Your task to perform on an android device: clear all cookies in the chrome app Image 0: 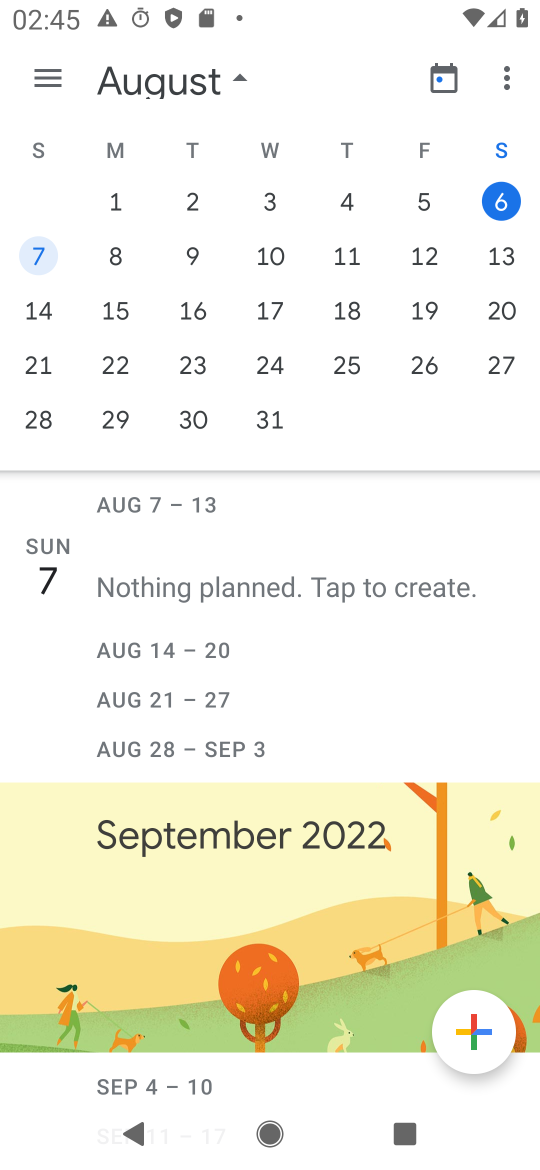
Step 0: press home button
Your task to perform on an android device: clear all cookies in the chrome app Image 1: 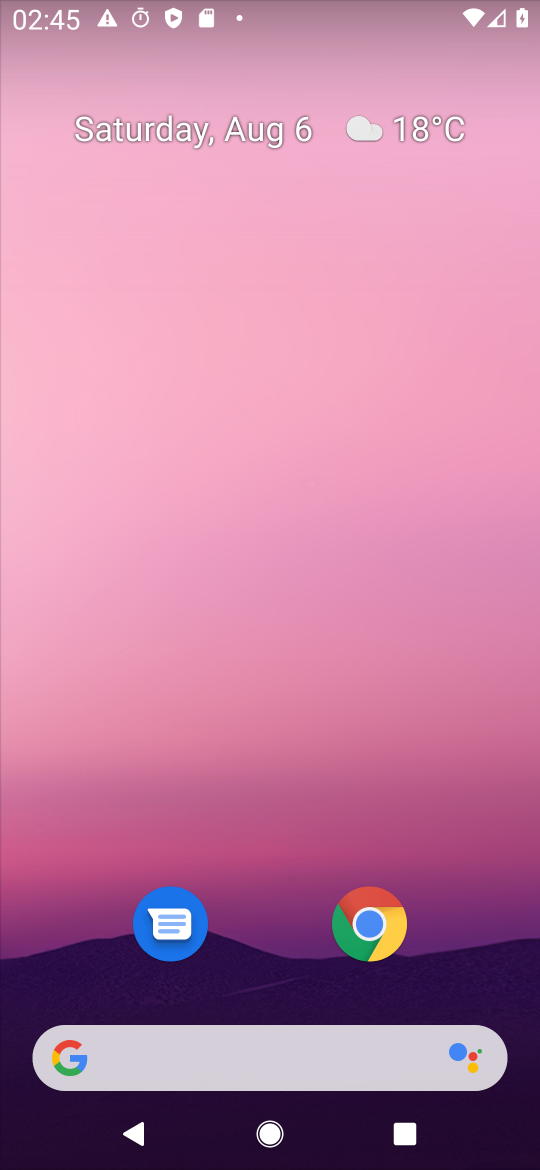
Step 1: drag from (341, 1059) to (371, 93)
Your task to perform on an android device: clear all cookies in the chrome app Image 2: 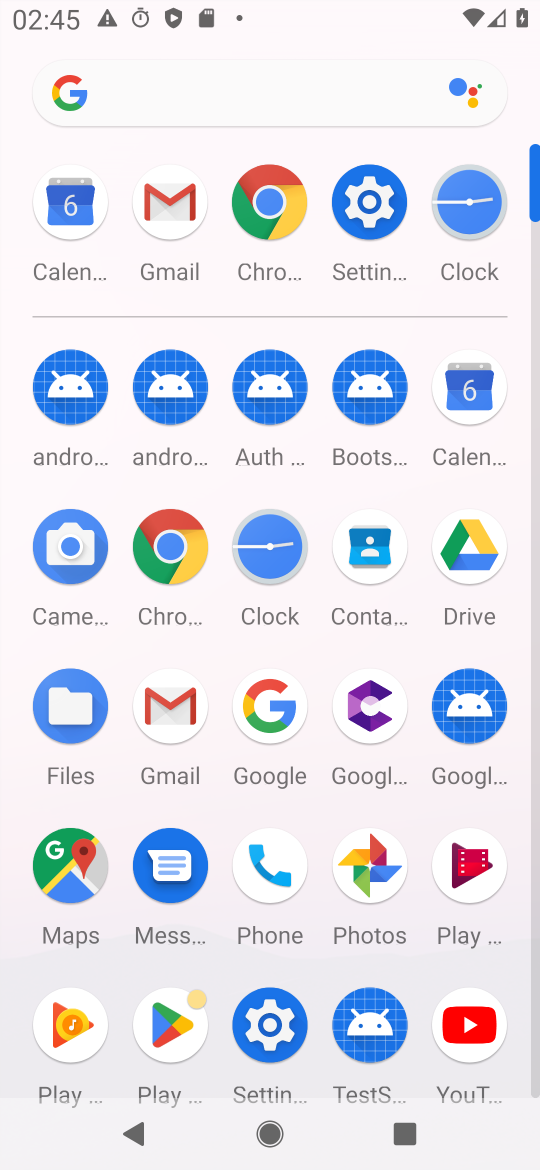
Step 2: click (157, 541)
Your task to perform on an android device: clear all cookies in the chrome app Image 3: 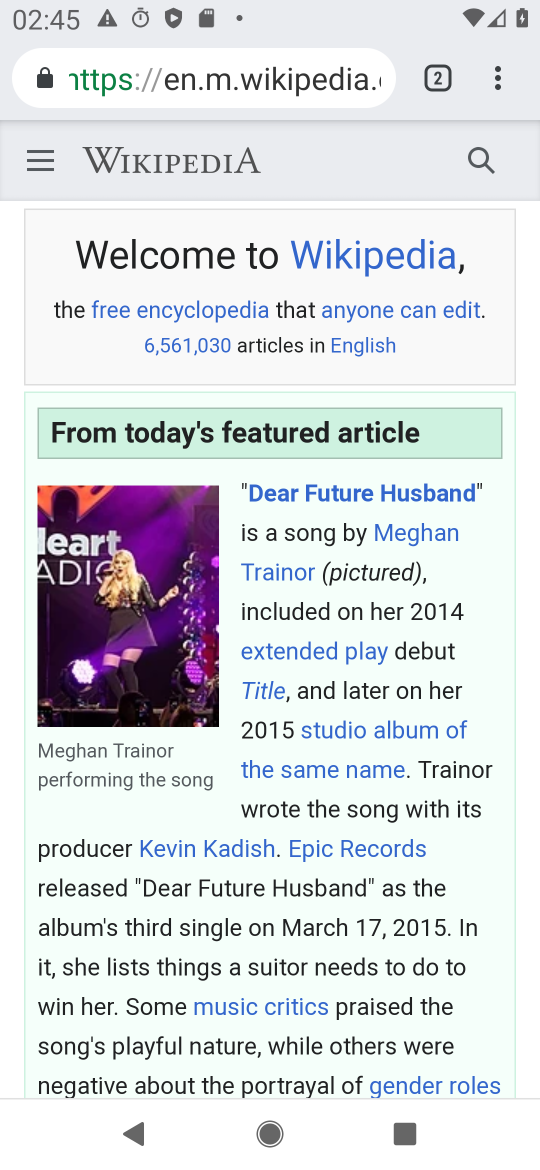
Step 3: click (491, 71)
Your task to perform on an android device: clear all cookies in the chrome app Image 4: 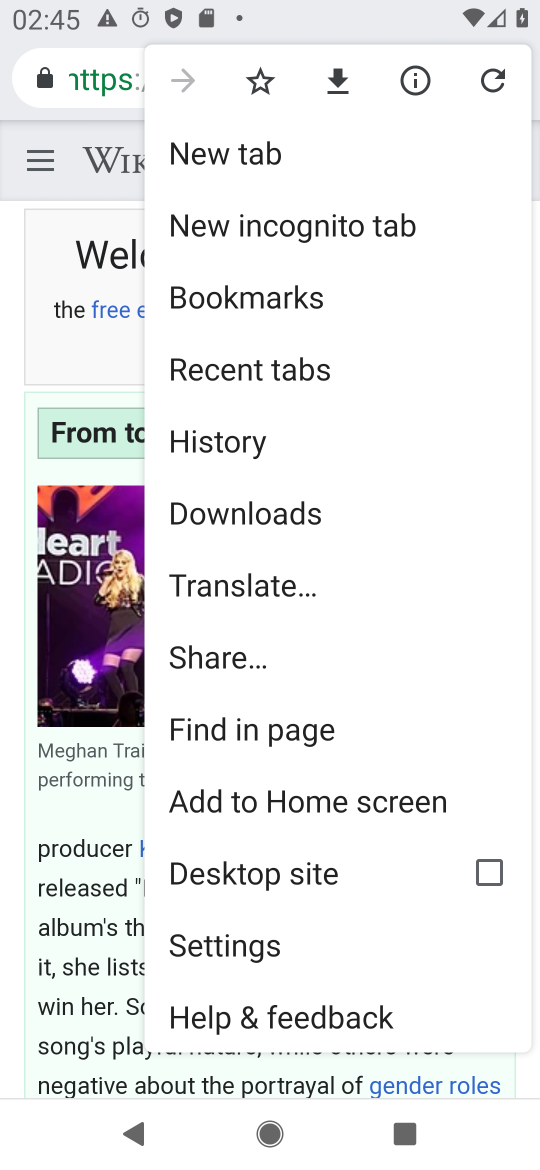
Step 4: click (211, 951)
Your task to perform on an android device: clear all cookies in the chrome app Image 5: 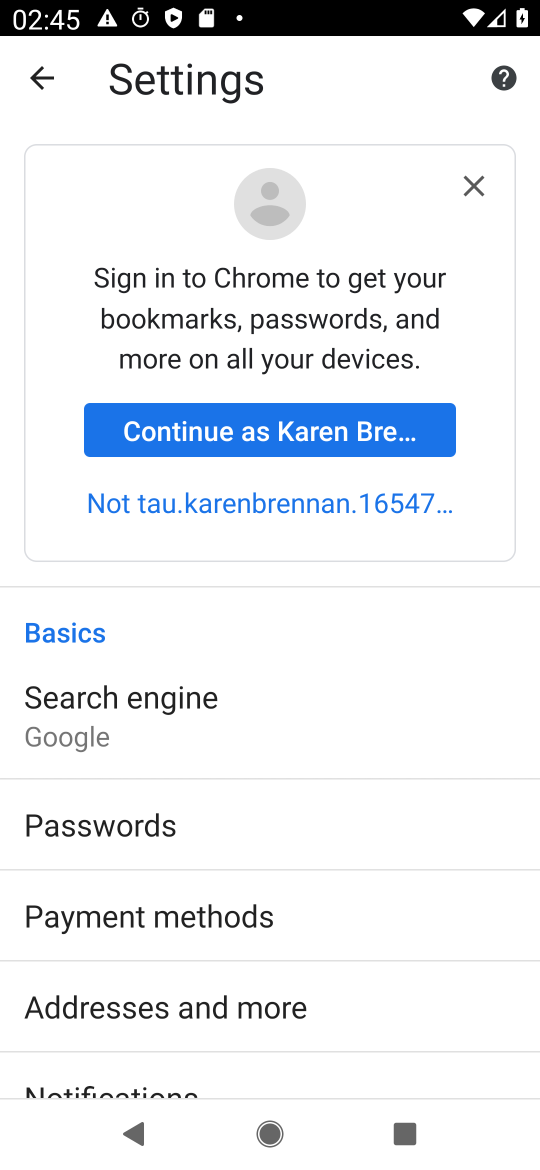
Step 5: drag from (453, 1035) to (508, 353)
Your task to perform on an android device: clear all cookies in the chrome app Image 6: 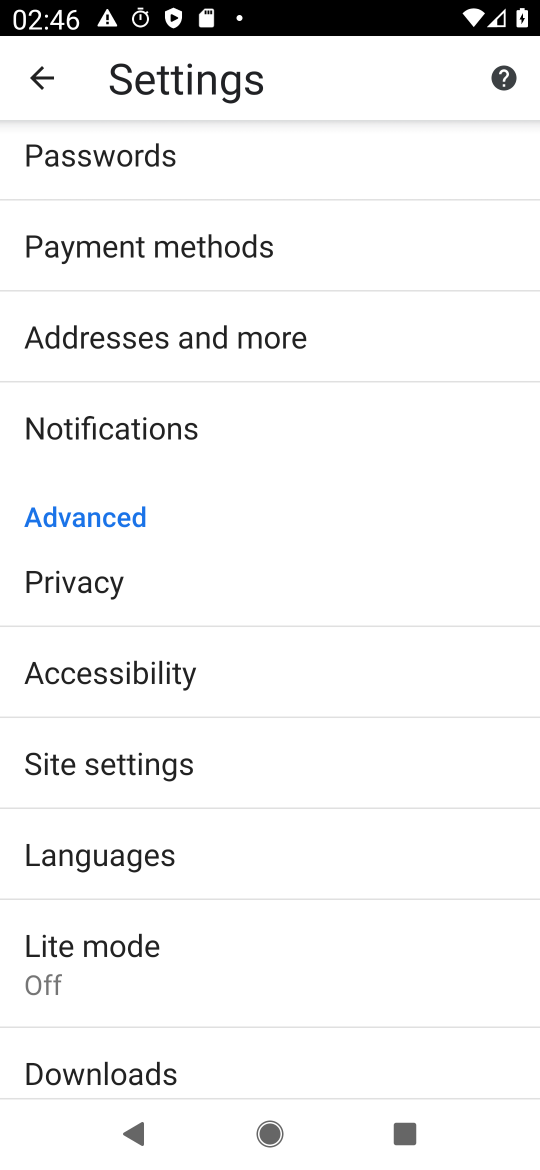
Step 6: click (150, 587)
Your task to perform on an android device: clear all cookies in the chrome app Image 7: 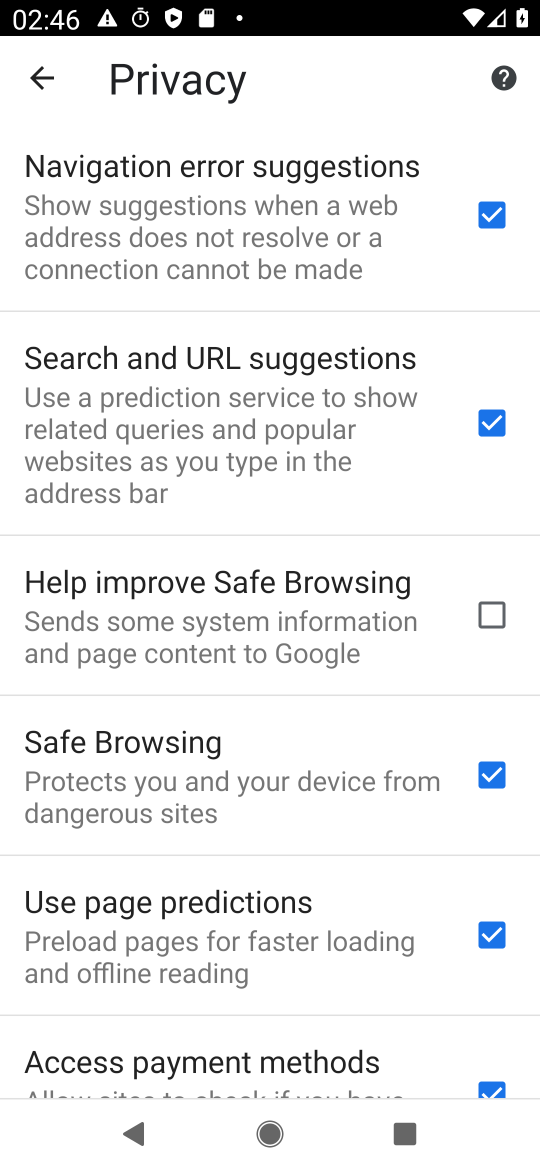
Step 7: drag from (297, 1036) to (287, 353)
Your task to perform on an android device: clear all cookies in the chrome app Image 8: 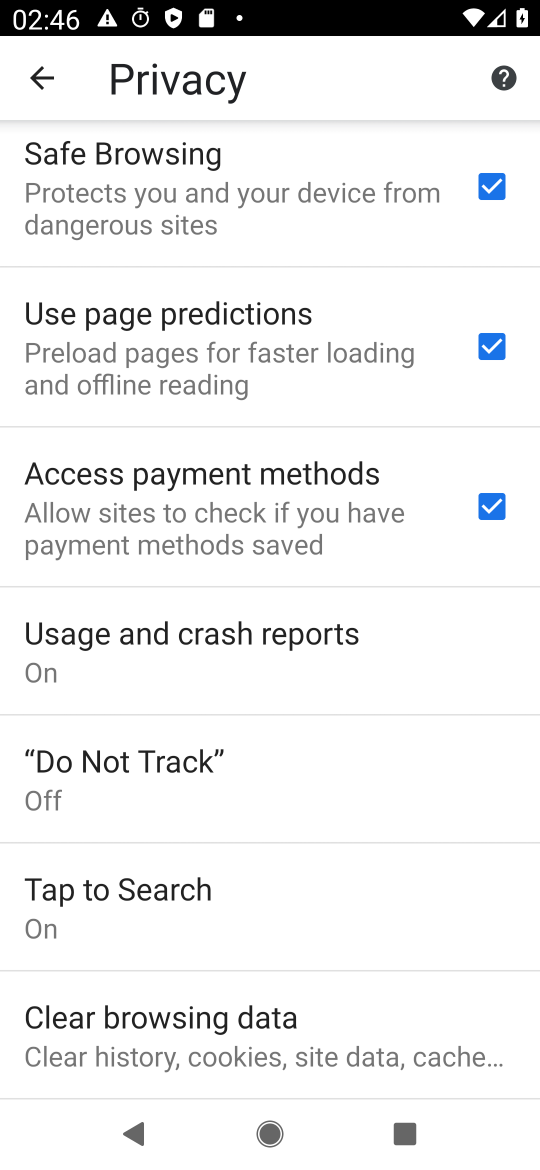
Step 8: click (218, 1032)
Your task to perform on an android device: clear all cookies in the chrome app Image 9: 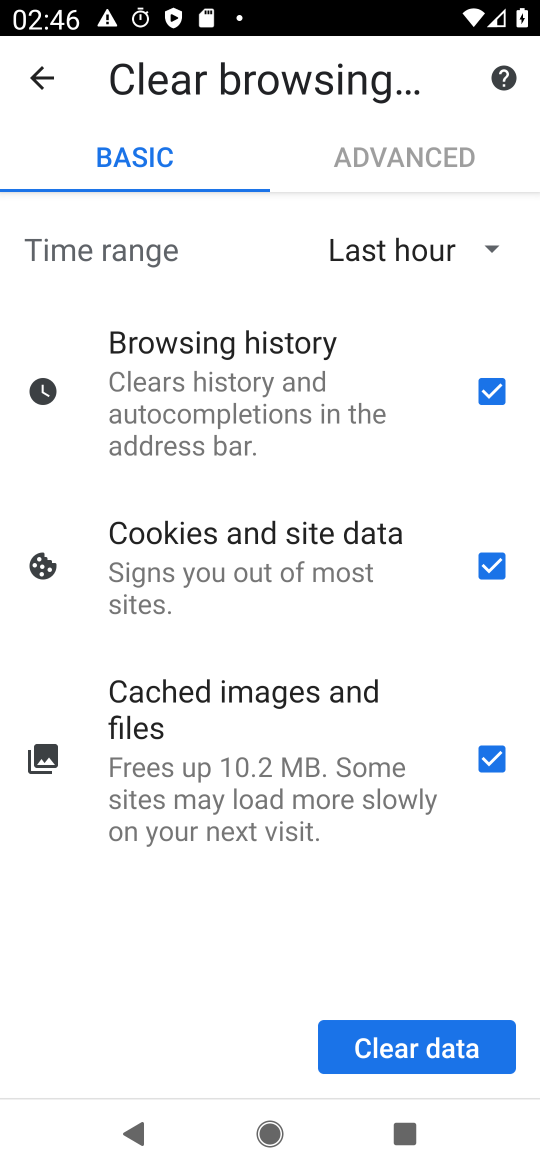
Step 9: click (414, 1033)
Your task to perform on an android device: clear all cookies in the chrome app Image 10: 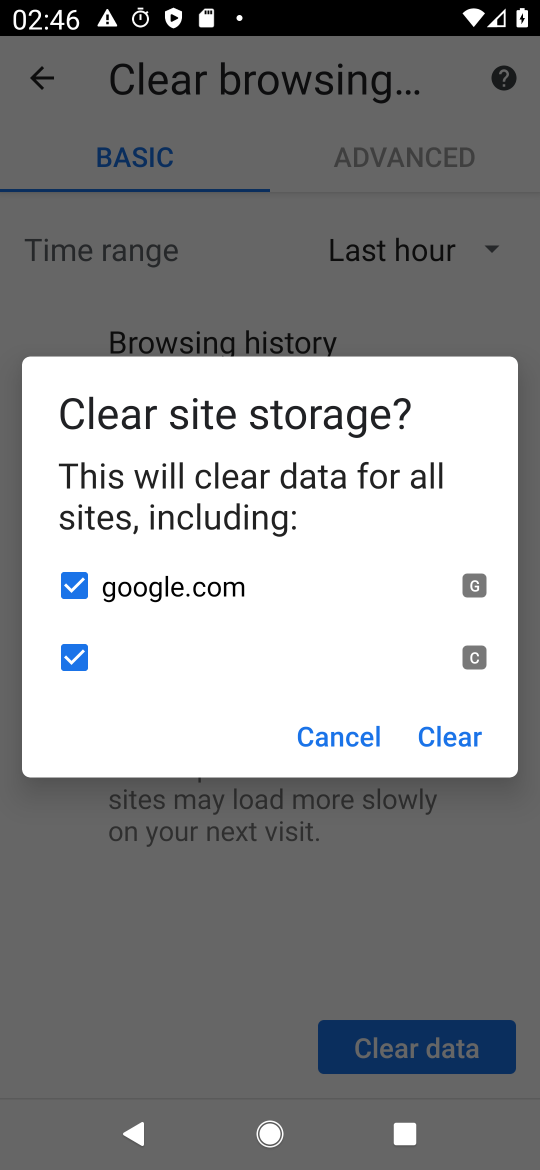
Step 10: click (446, 745)
Your task to perform on an android device: clear all cookies in the chrome app Image 11: 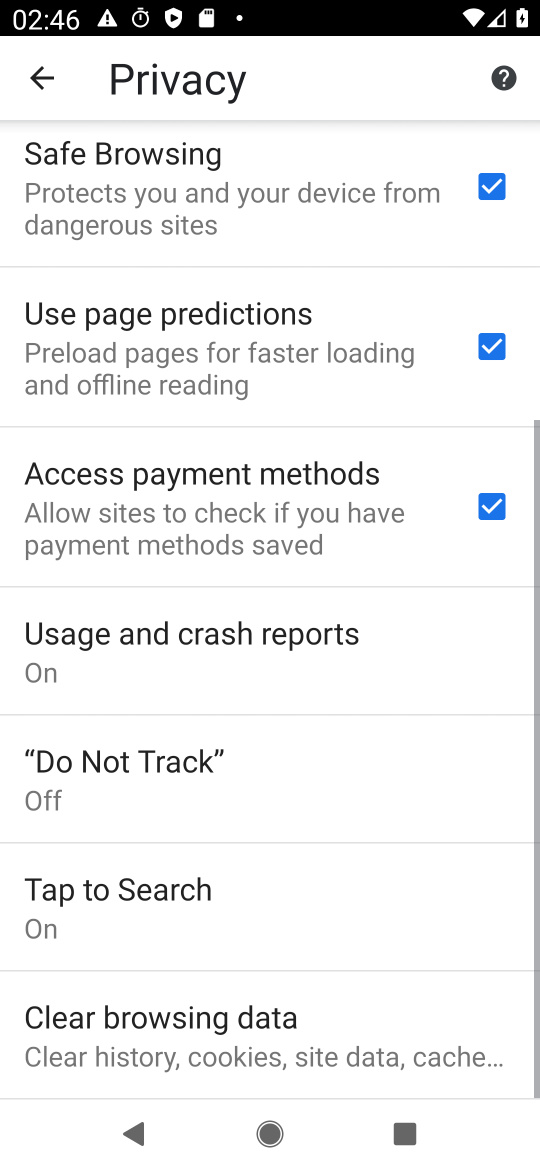
Step 11: task complete